Your task to perform on an android device: Open location settings Image 0: 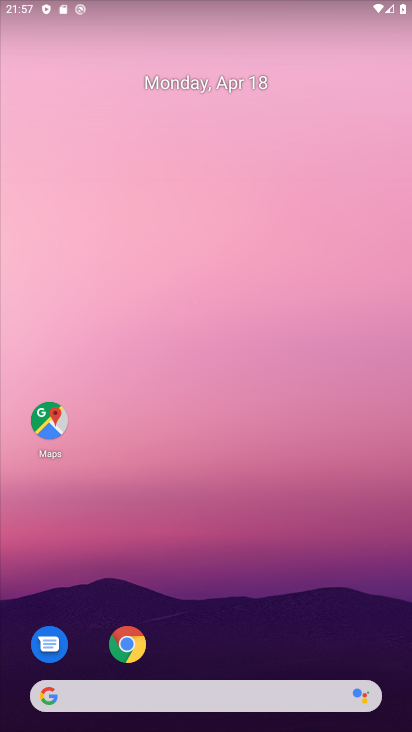
Step 0: drag from (209, 654) to (305, 88)
Your task to perform on an android device: Open location settings Image 1: 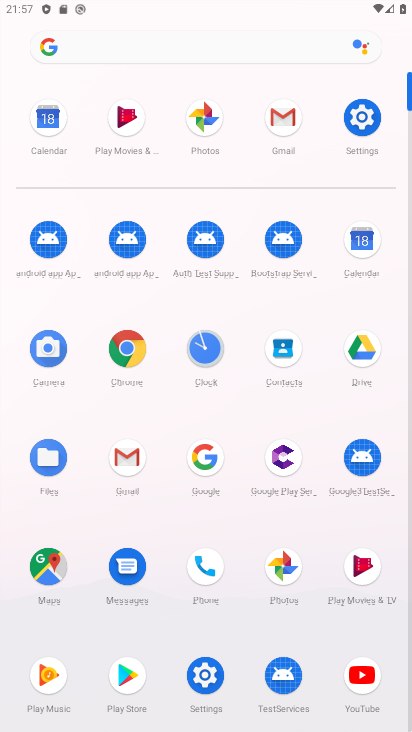
Step 1: click (205, 685)
Your task to perform on an android device: Open location settings Image 2: 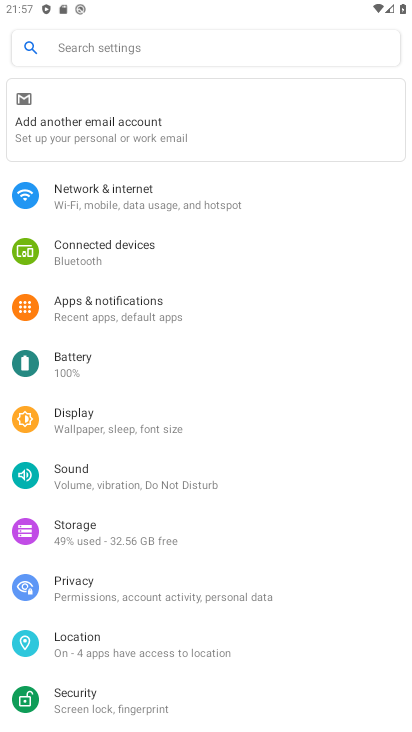
Step 2: click (95, 635)
Your task to perform on an android device: Open location settings Image 3: 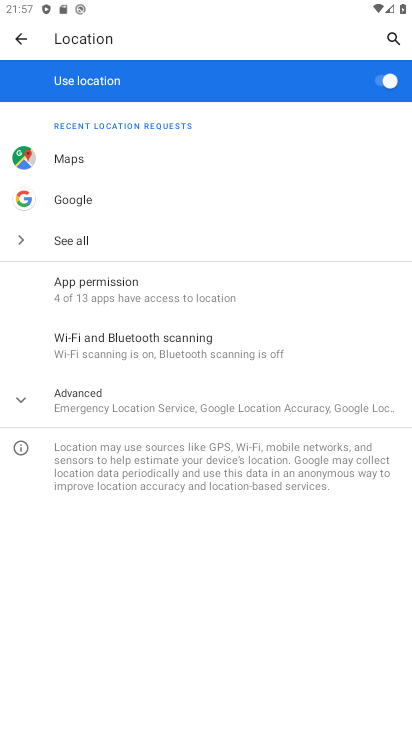
Step 3: click (78, 406)
Your task to perform on an android device: Open location settings Image 4: 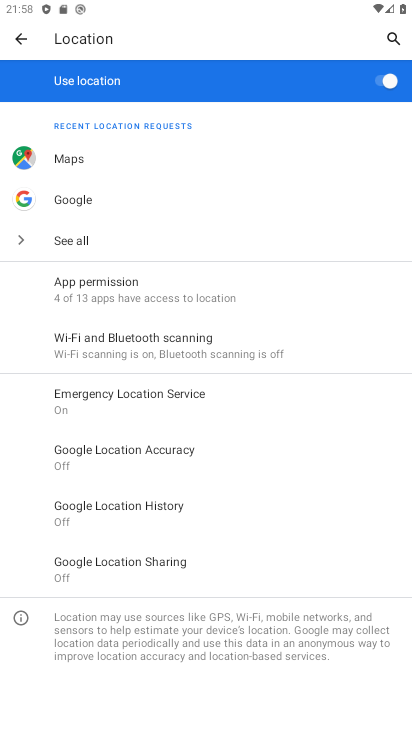
Step 4: task complete